Your task to perform on an android device: toggle priority inbox in the gmail app Image 0: 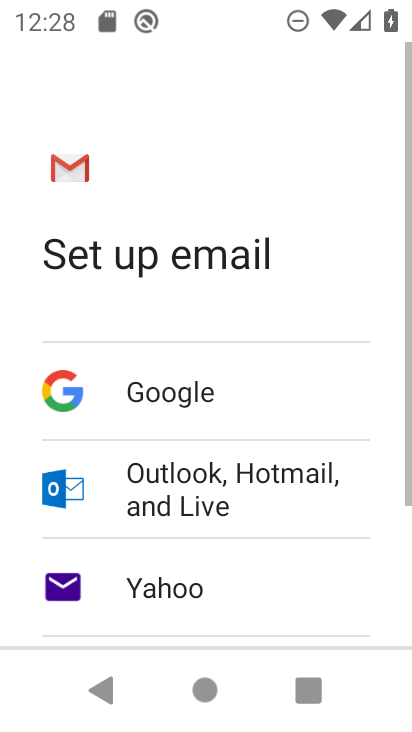
Step 0: press home button
Your task to perform on an android device: toggle priority inbox in the gmail app Image 1: 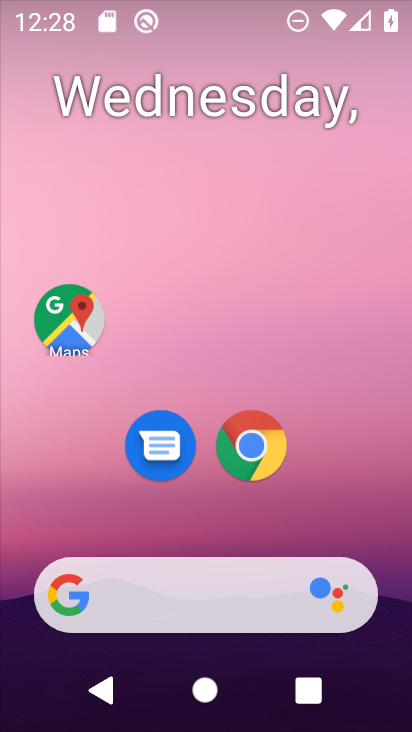
Step 1: drag from (388, 646) to (291, 36)
Your task to perform on an android device: toggle priority inbox in the gmail app Image 2: 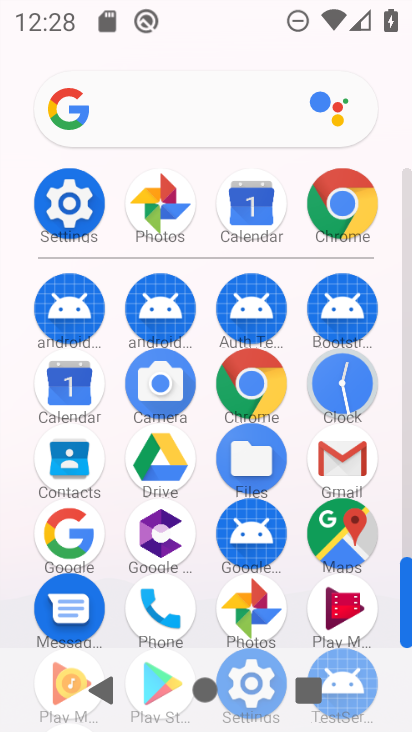
Step 2: click (365, 448)
Your task to perform on an android device: toggle priority inbox in the gmail app Image 3: 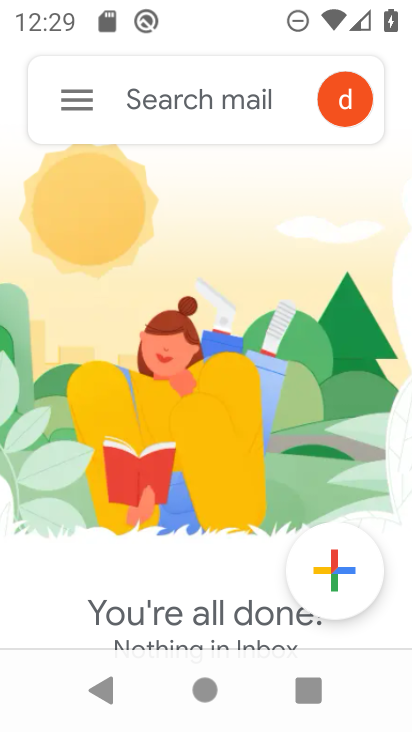
Step 3: click (57, 103)
Your task to perform on an android device: toggle priority inbox in the gmail app Image 4: 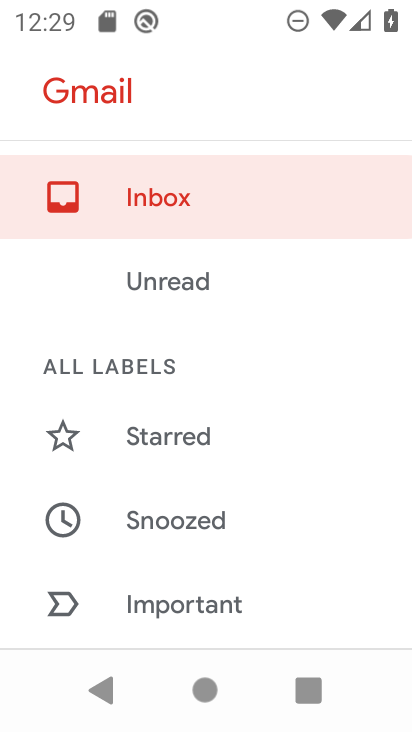
Step 4: drag from (125, 631) to (207, 420)
Your task to perform on an android device: toggle priority inbox in the gmail app Image 5: 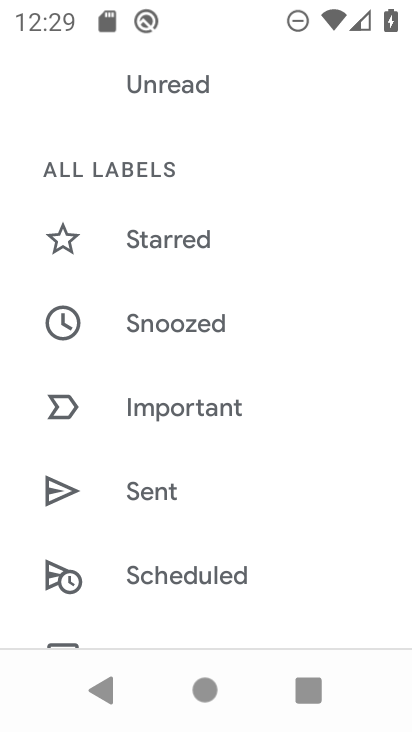
Step 5: drag from (230, 122) to (222, 70)
Your task to perform on an android device: toggle priority inbox in the gmail app Image 6: 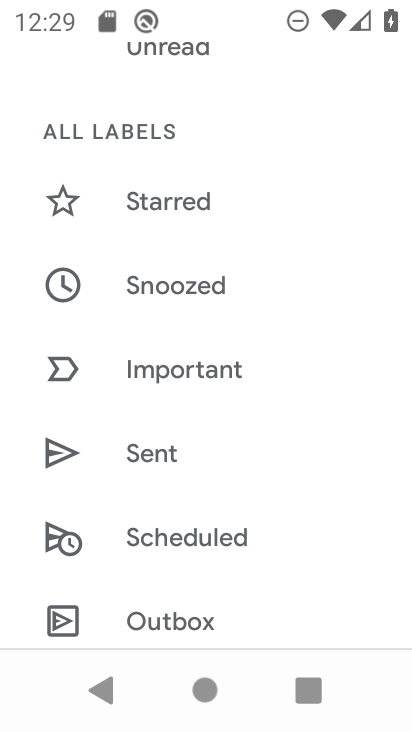
Step 6: drag from (160, 617) to (217, 129)
Your task to perform on an android device: toggle priority inbox in the gmail app Image 7: 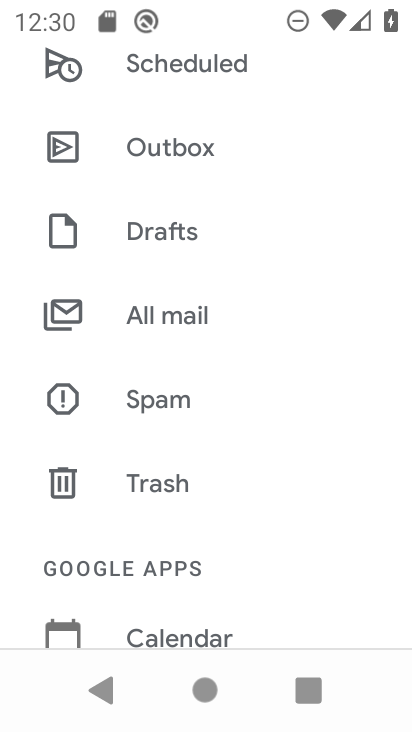
Step 7: drag from (159, 627) to (192, 66)
Your task to perform on an android device: toggle priority inbox in the gmail app Image 8: 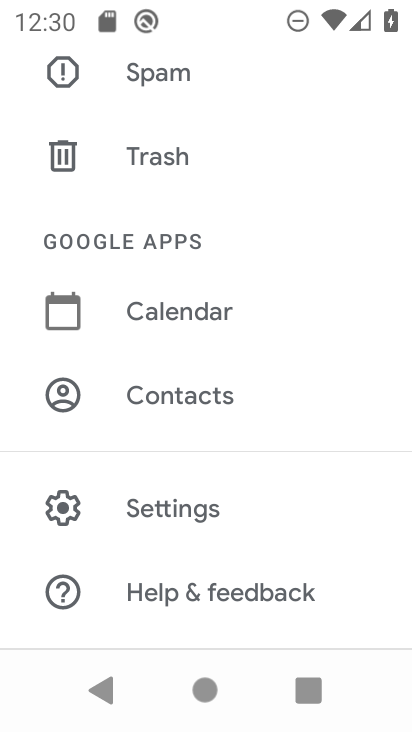
Step 8: click (142, 518)
Your task to perform on an android device: toggle priority inbox in the gmail app Image 9: 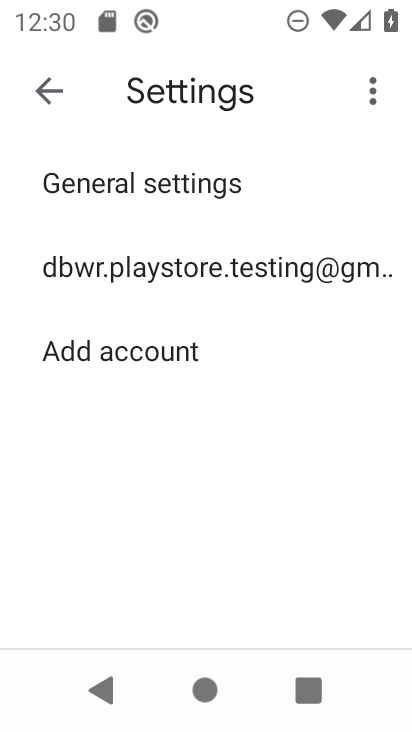
Step 9: click (259, 244)
Your task to perform on an android device: toggle priority inbox in the gmail app Image 10: 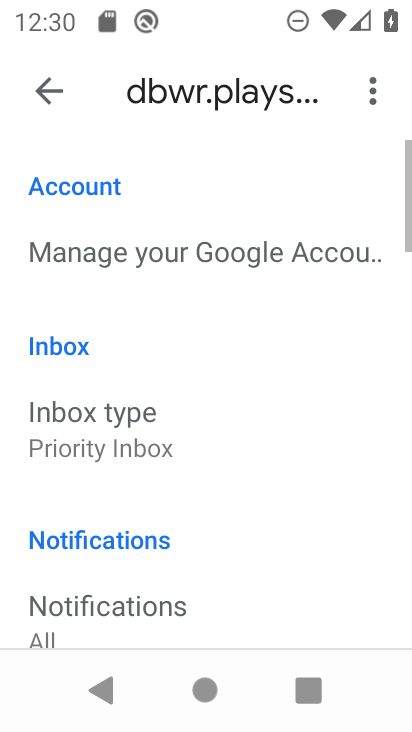
Step 10: click (214, 430)
Your task to perform on an android device: toggle priority inbox in the gmail app Image 11: 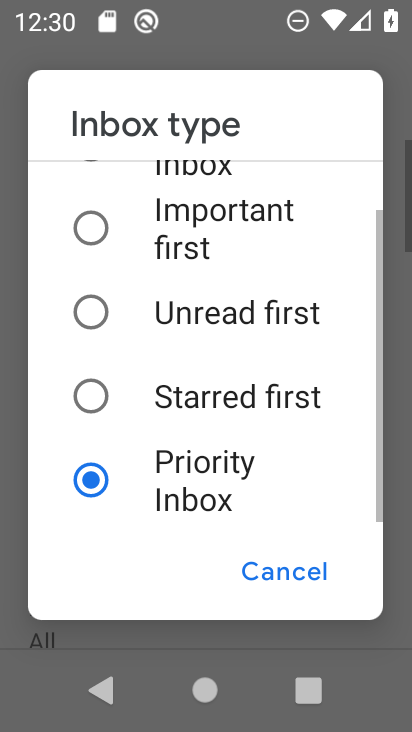
Step 11: drag from (77, 196) to (85, 532)
Your task to perform on an android device: toggle priority inbox in the gmail app Image 12: 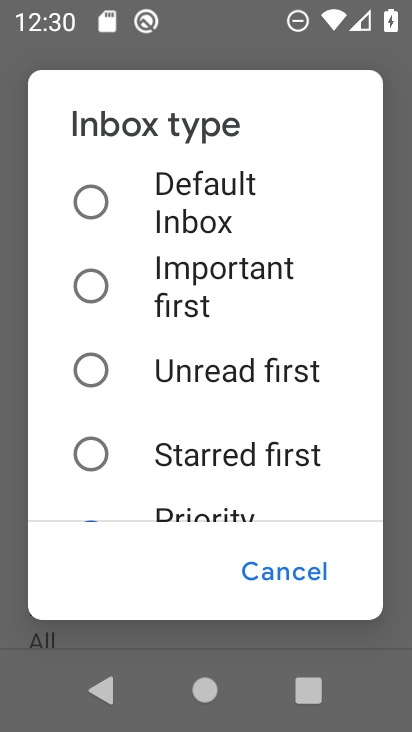
Step 12: click (78, 203)
Your task to perform on an android device: toggle priority inbox in the gmail app Image 13: 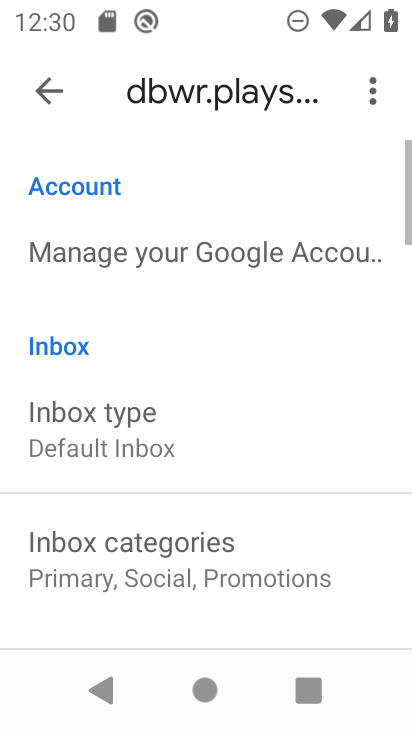
Step 13: task complete